Your task to perform on an android device: all mails in gmail Image 0: 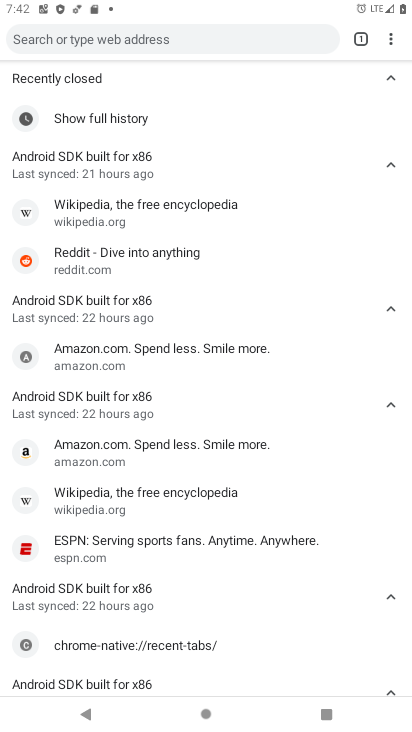
Step 0: press home button
Your task to perform on an android device: all mails in gmail Image 1: 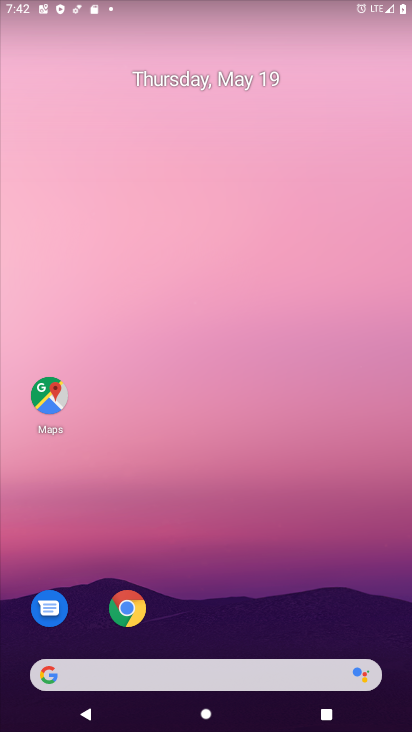
Step 1: drag from (390, 668) to (367, 163)
Your task to perform on an android device: all mails in gmail Image 2: 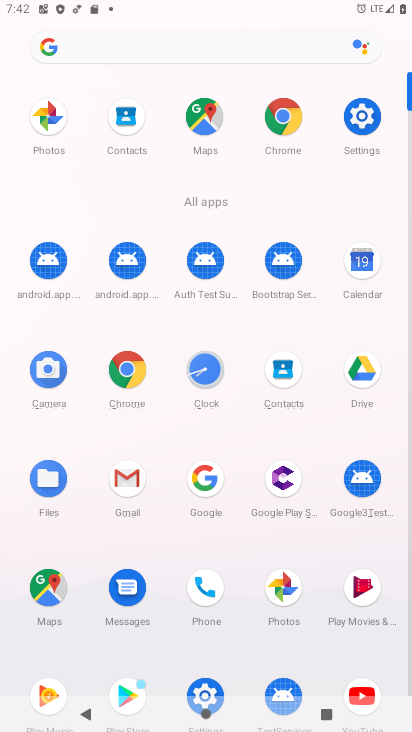
Step 2: click (121, 479)
Your task to perform on an android device: all mails in gmail Image 3: 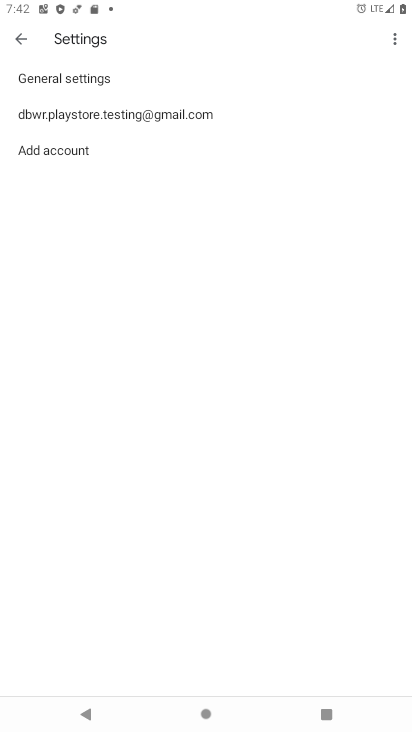
Step 3: click (13, 34)
Your task to perform on an android device: all mails in gmail Image 4: 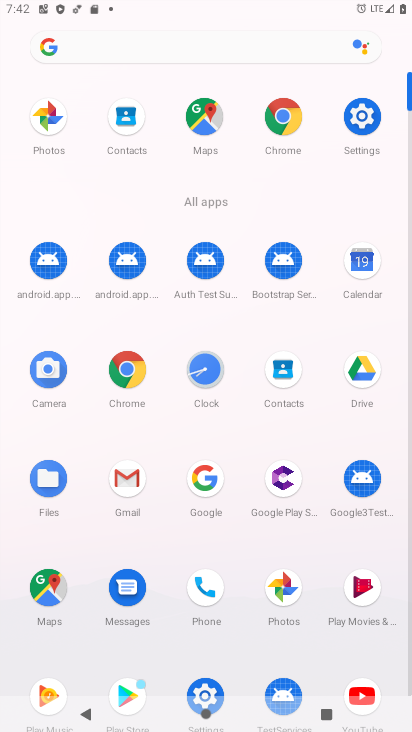
Step 4: click (140, 476)
Your task to perform on an android device: all mails in gmail Image 5: 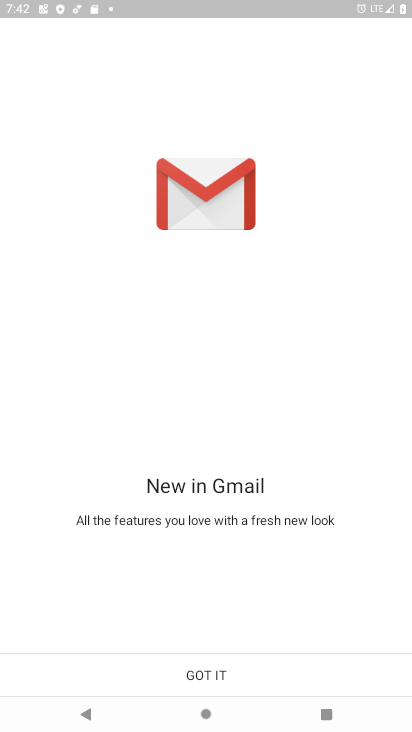
Step 5: click (193, 670)
Your task to perform on an android device: all mails in gmail Image 6: 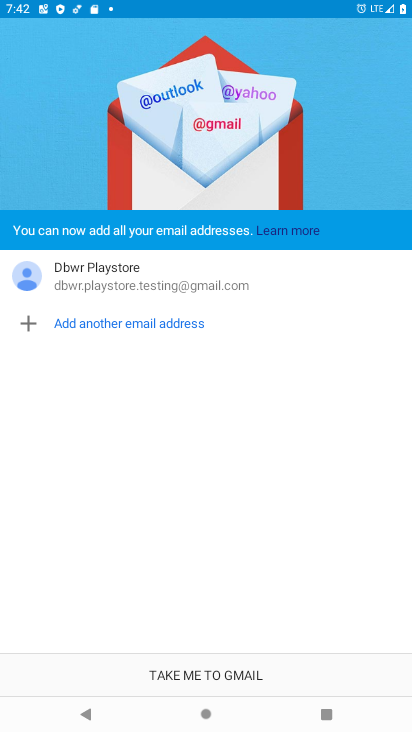
Step 6: click (205, 665)
Your task to perform on an android device: all mails in gmail Image 7: 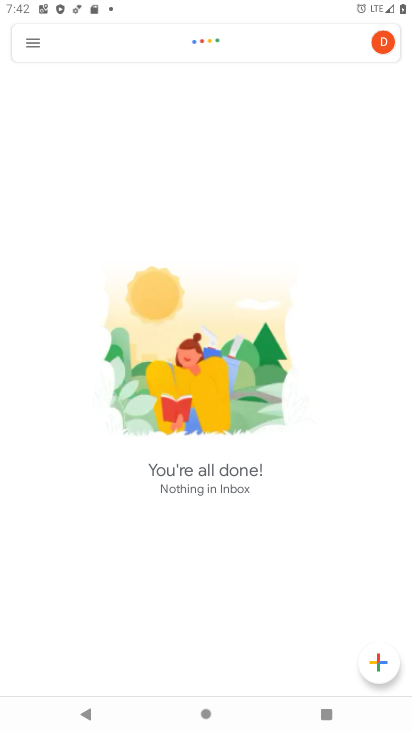
Step 7: click (21, 41)
Your task to perform on an android device: all mails in gmail Image 8: 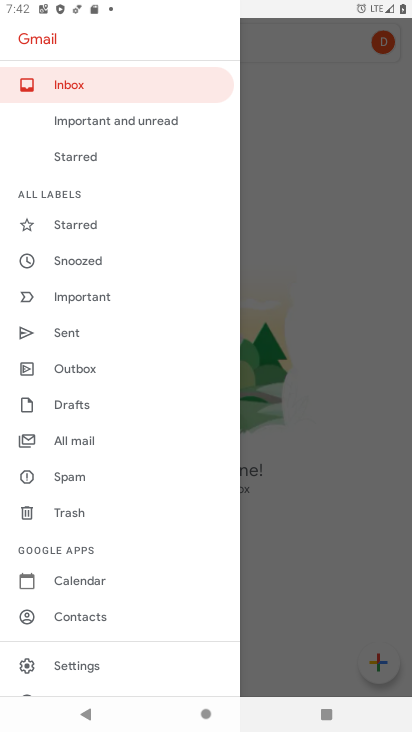
Step 8: click (72, 443)
Your task to perform on an android device: all mails in gmail Image 9: 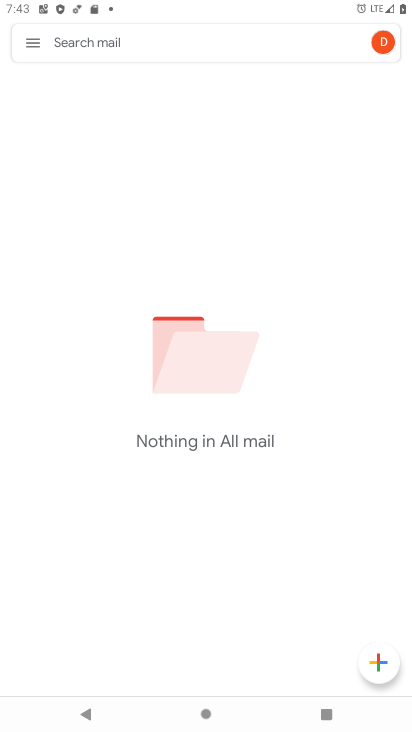
Step 9: task complete